Your task to perform on an android device: change the clock display to analog Image 0: 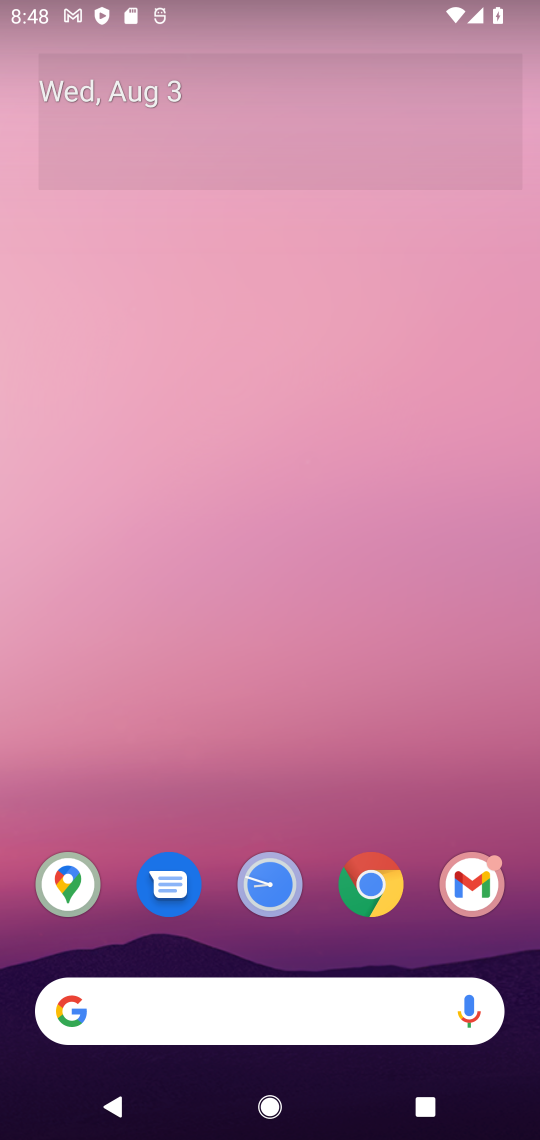
Step 0: click (255, 881)
Your task to perform on an android device: change the clock display to analog Image 1: 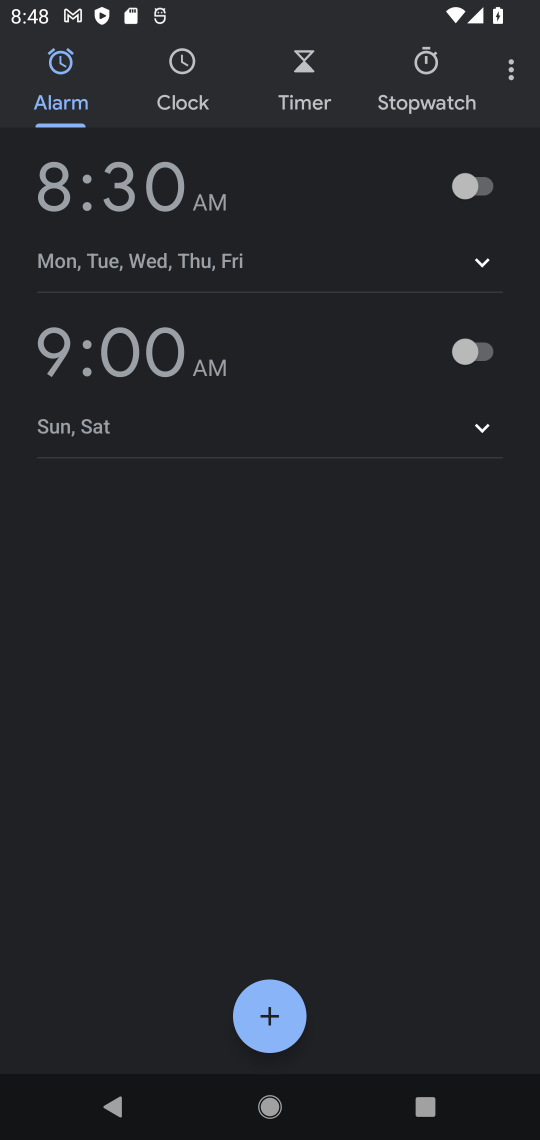
Step 1: click (199, 88)
Your task to perform on an android device: change the clock display to analog Image 2: 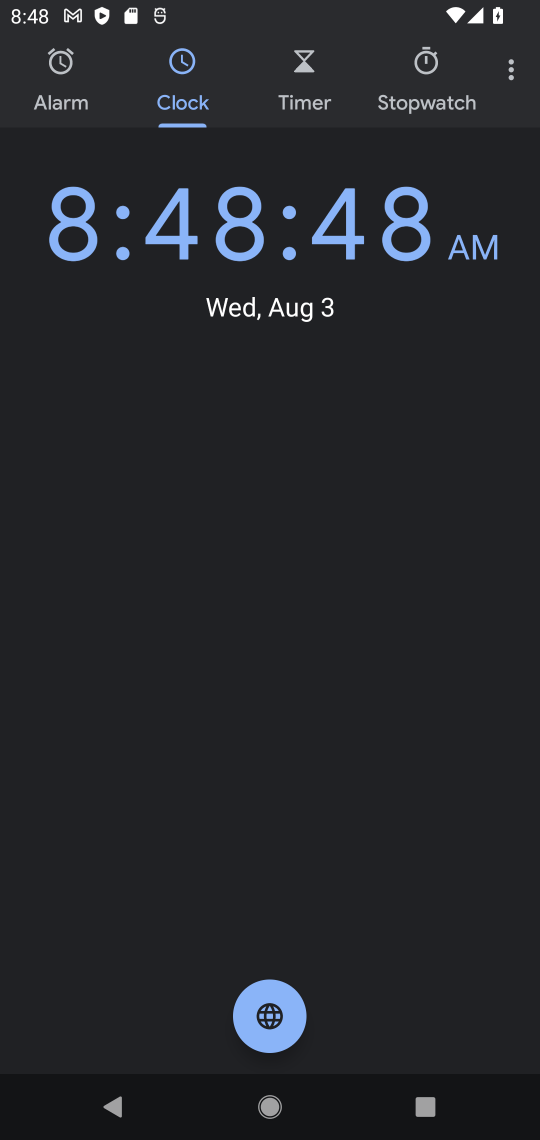
Step 2: click (508, 70)
Your task to perform on an android device: change the clock display to analog Image 3: 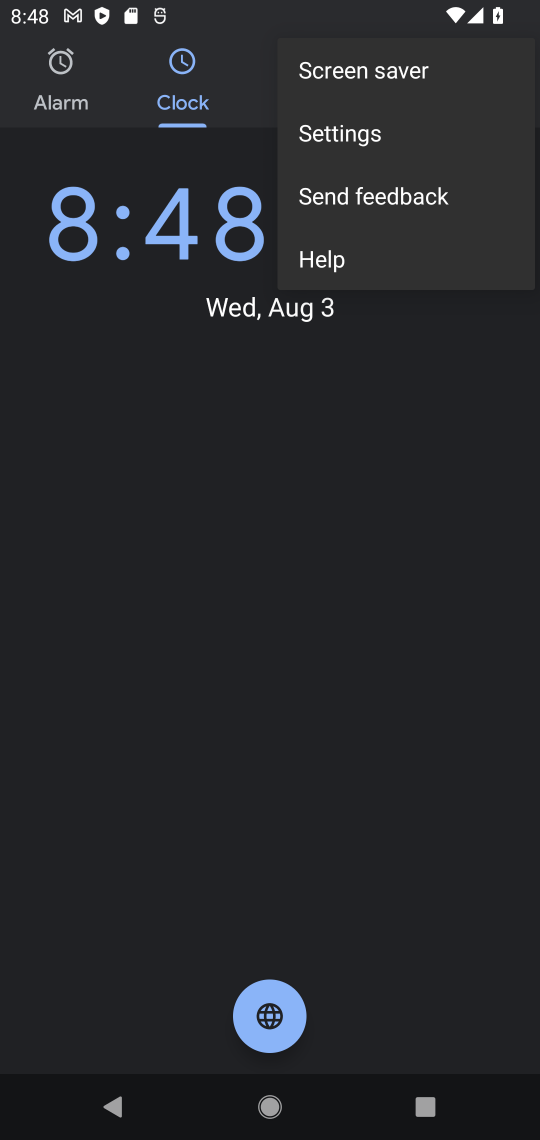
Step 3: click (351, 128)
Your task to perform on an android device: change the clock display to analog Image 4: 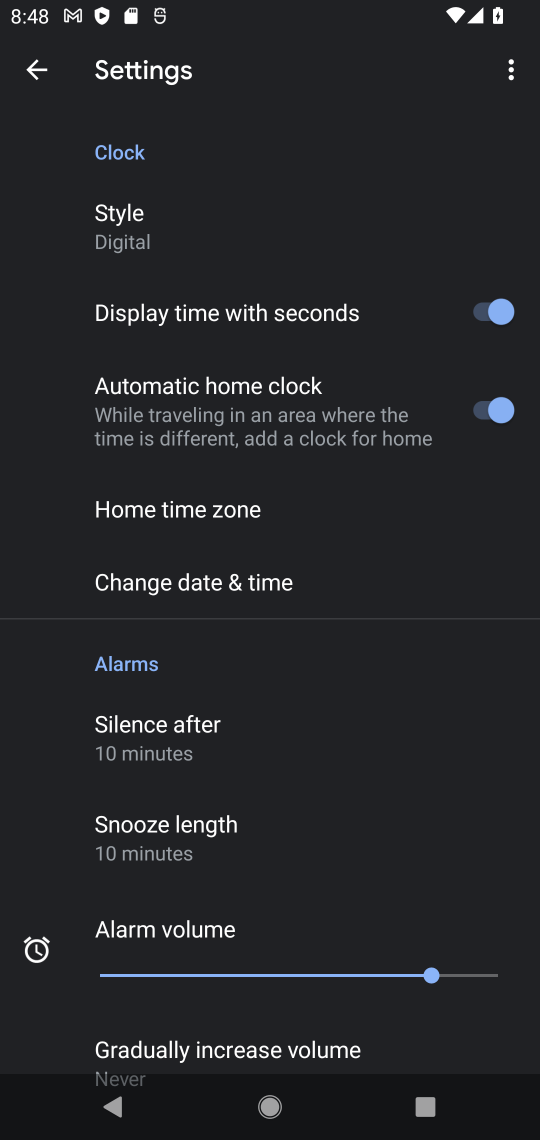
Step 4: click (158, 232)
Your task to perform on an android device: change the clock display to analog Image 5: 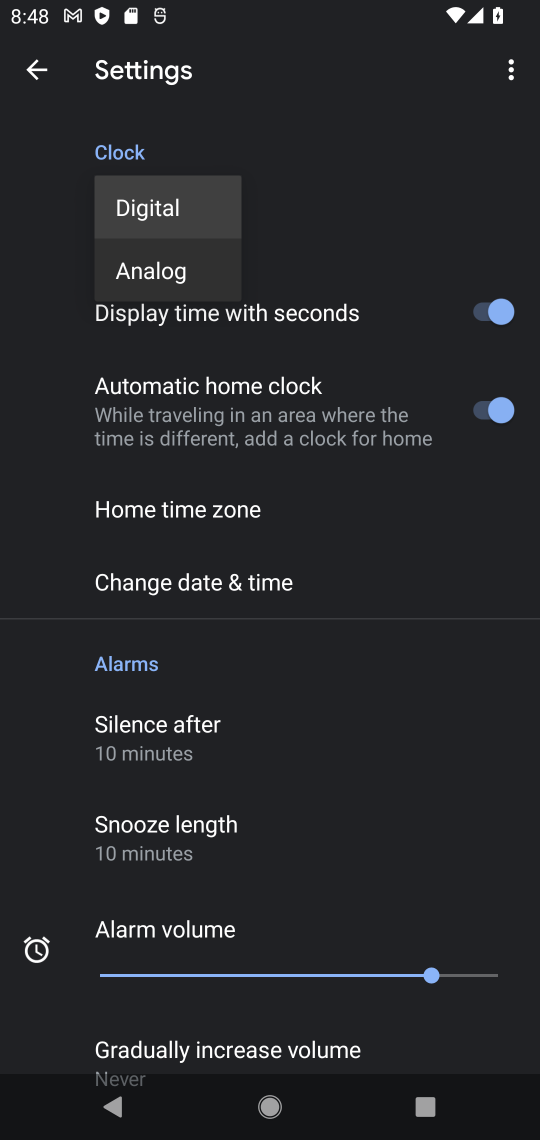
Step 5: click (182, 271)
Your task to perform on an android device: change the clock display to analog Image 6: 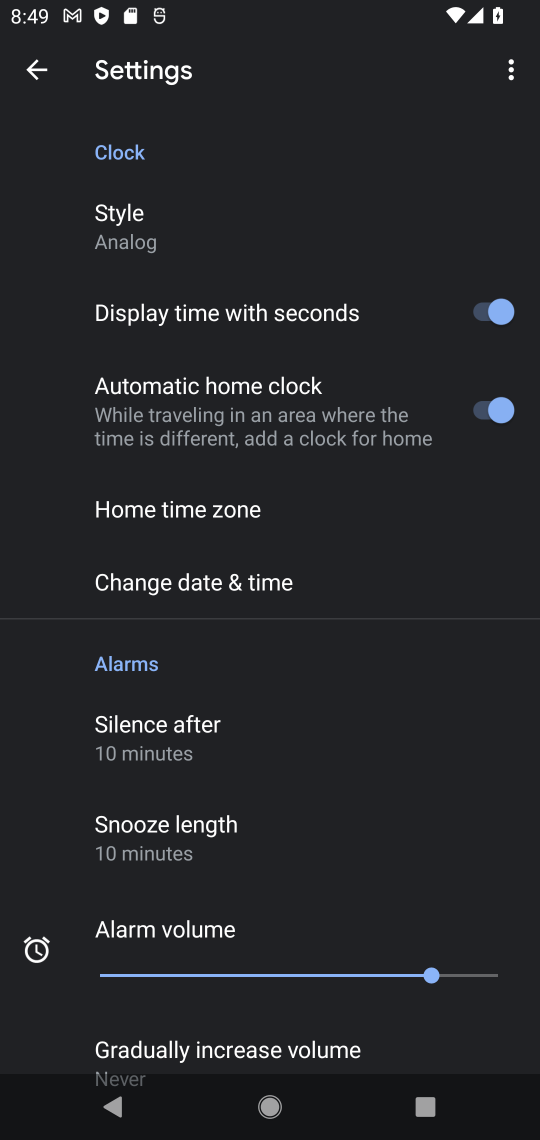
Step 6: task complete